Your task to perform on an android device: What's on my calendar tomorrow? Image 0: 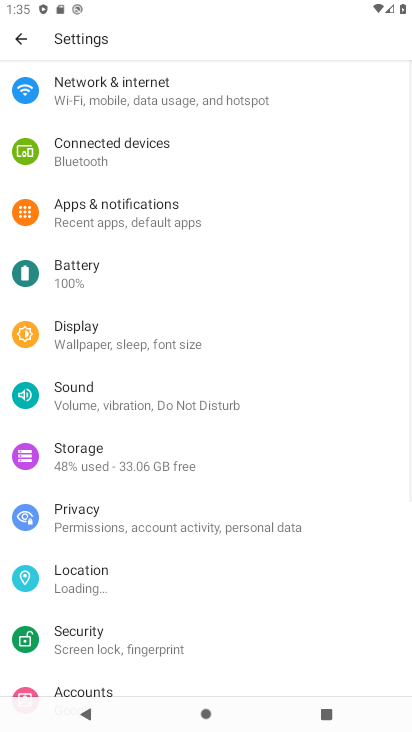
Step 0: press home button
Your task to perform on an android device: What's on my calendar tomorrow? Image 1: 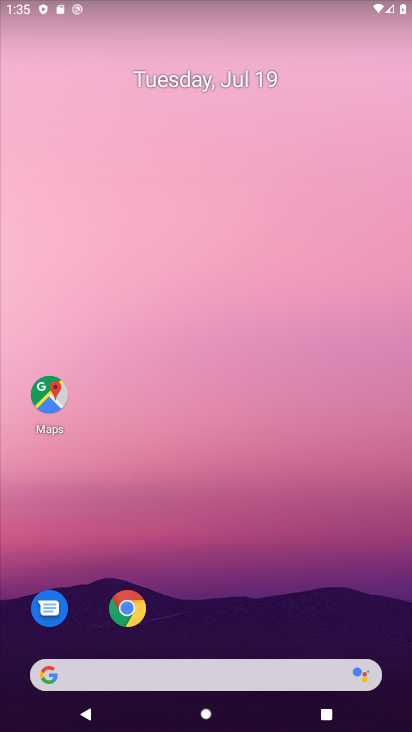
Step 1: drag from (251, 629) to (160, 31)
Your task to perform on an android device: What's on my calendar tomorrow? Image 2: 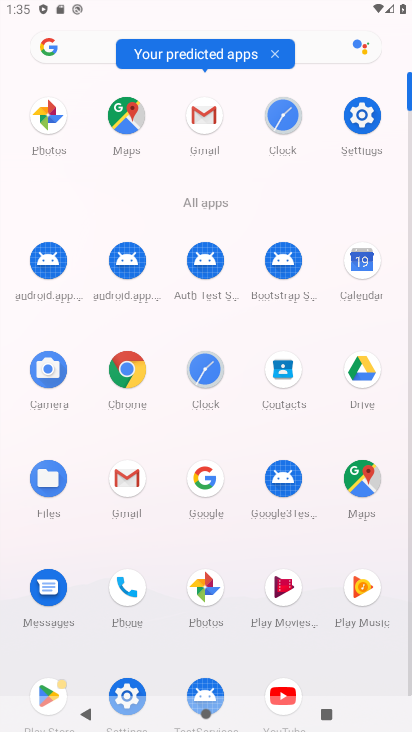
Step 2: click (362, 274)
Your task to perform on an android device: What's on my calendar tomorrow? Image 3: 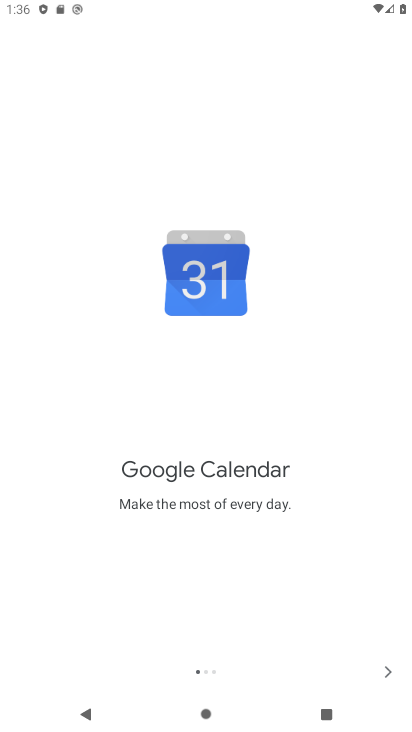
Step 3: click (387, 665)
Your task to perform on an android device: What's on my calendar tomorrow? Image 4: 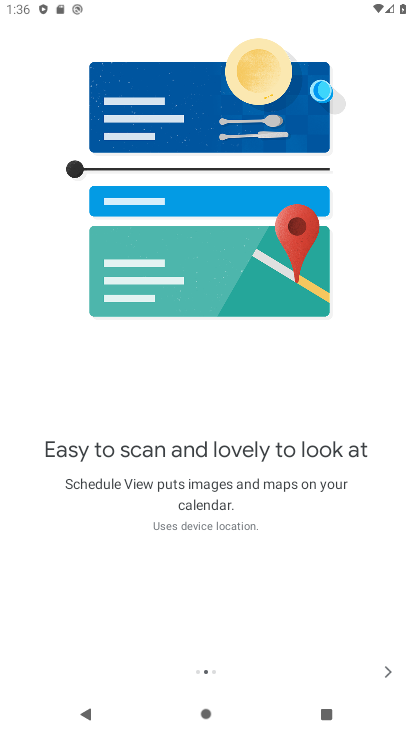
Step 4: click (381, 668)
Your task to perform on an android device: What's on my calendar tomorrow? Image 5: 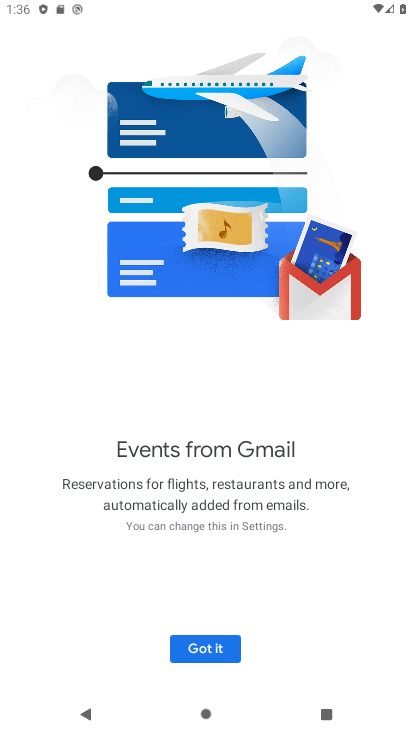
Step 5: click (220, 652)
Your task to perform on an android device: What's on my calendar tomorrow? Image 6: 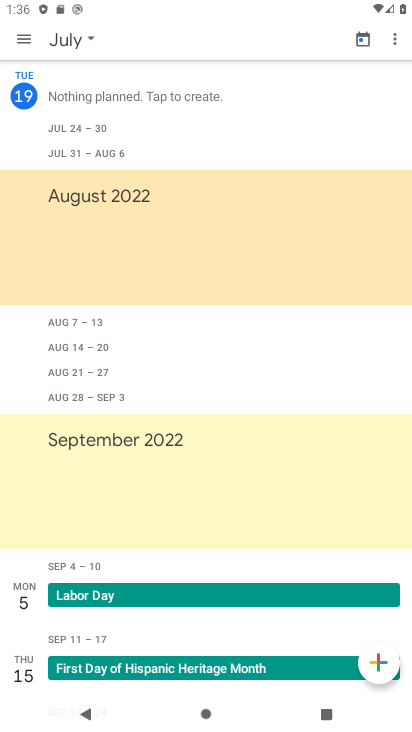
Step 6: click (32, 46)
Your task to perform on an android device: What's on my calendar tomorrow? Image 7: 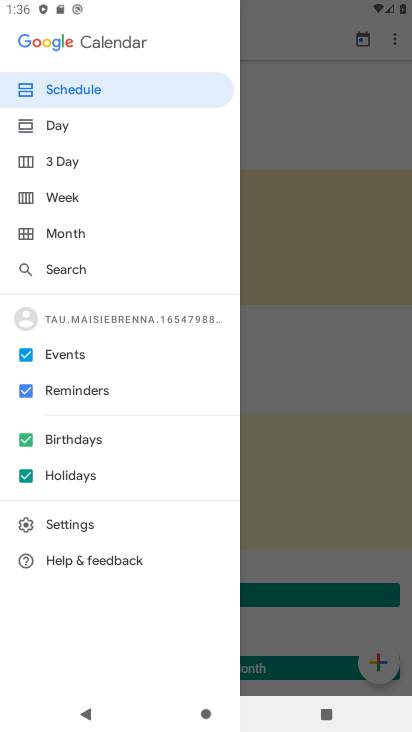
Step 7: click (55, 121)
Your task to perform on an android device: What's on my calendar tomorrow? Image 8: 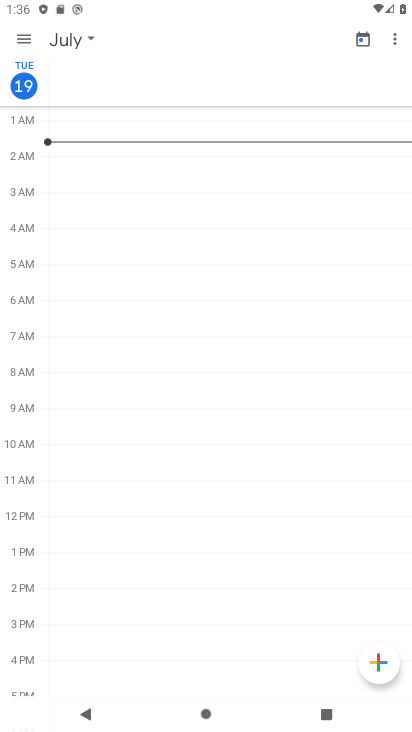
Step 8: task complete